Your task to perform on an android device: toggle translation in the chrome app Image 0: 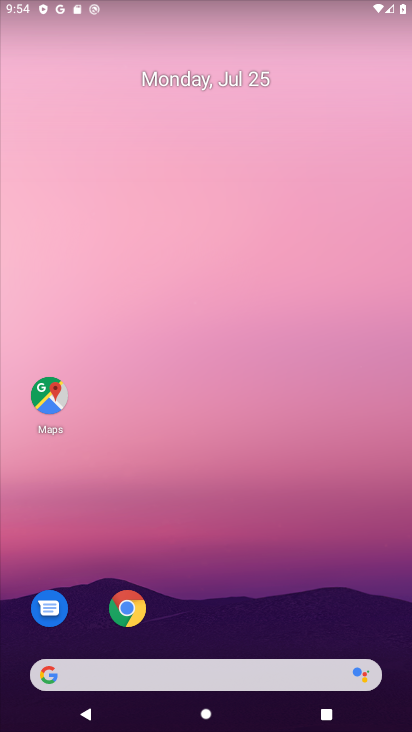
Step 0: drag from (179, 608) to (190, 14)
Your task to perform on an android device: toggle translation in the chrome app Image 1: 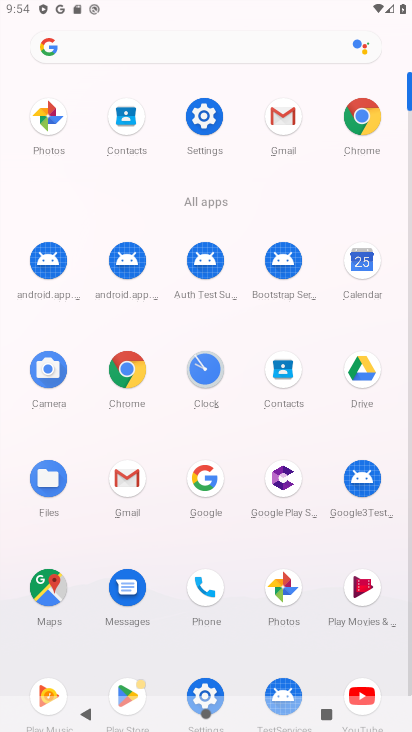
Step 1: click (353, 138)
Your task to perform on an android device: toggle translation in the chrome app Image 2: 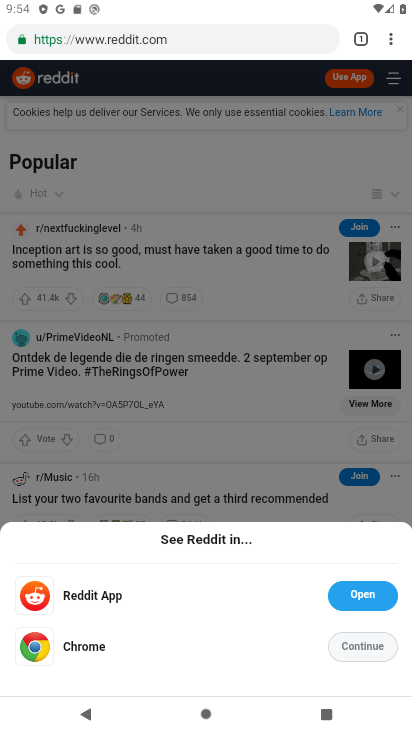
Step 2: click (393, 42)
Your task to perform on an android device: toggle translation in the chrome app Image 3: 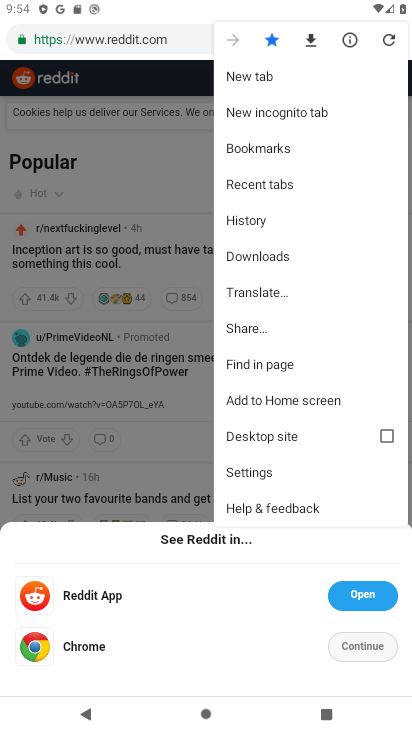
Step 3: click (253, 471)
Your task to perform on an android device: toggle translation in the chrome app Image 4: 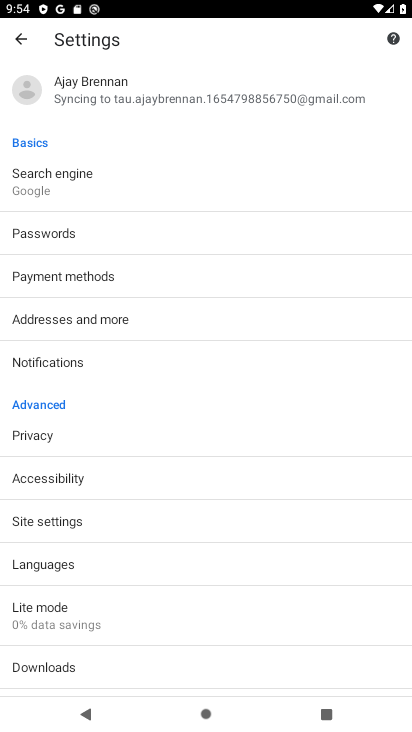
Step 4: click (43, 368)
Your task to perform on an android device: toggle translation in the chrome app Image 5: 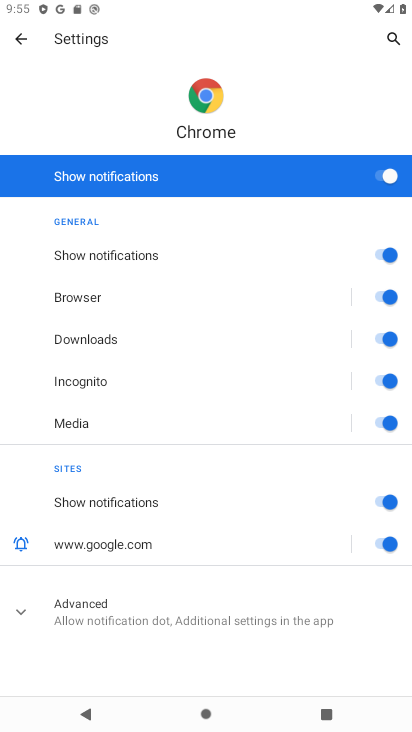
Step 5: click (389, 170)
Your task to perform on an android device: toggle translation in the chrome app Image 6: 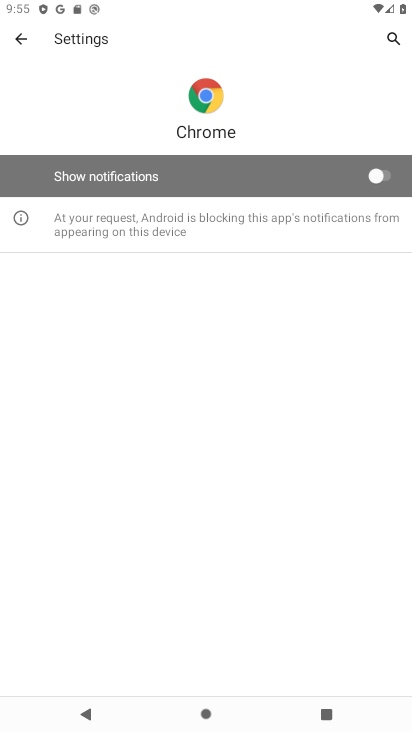
Step 6: task complete